Your task to perform on an android device: Open the stopwatch Image 0: 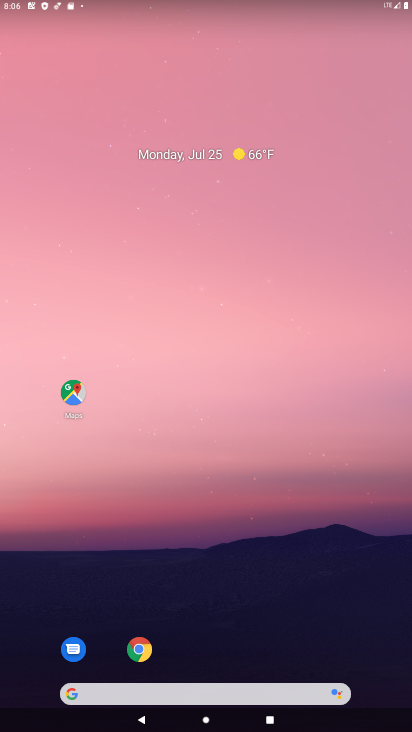
Step 0: drag from (271, 644) to (258, 44)
Your task to perform on an android device: Open the stopwatch Image 1: 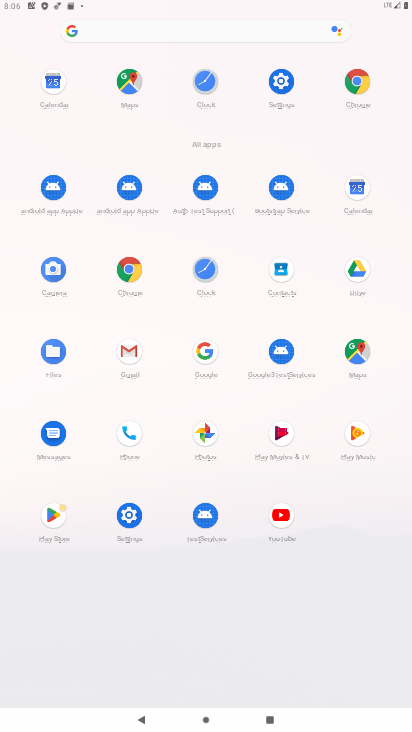
Step 1: click (199, 80)
Your task to perform on an android device: Open the stopwatch Image 2: 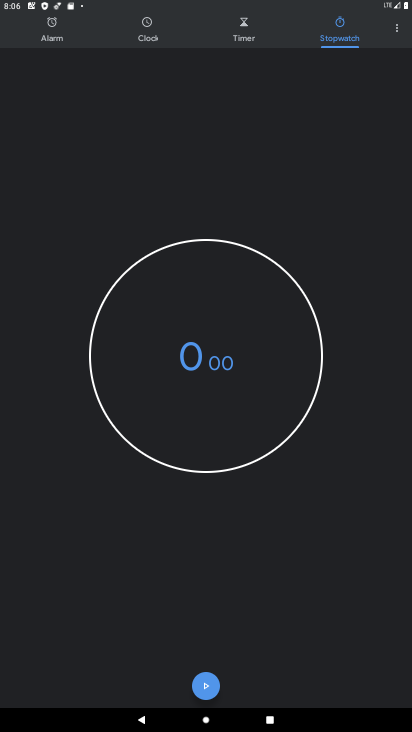
Step 2: task complete